Your task to perform on an android device: Show me productivity apps on the Play Store Image 0: 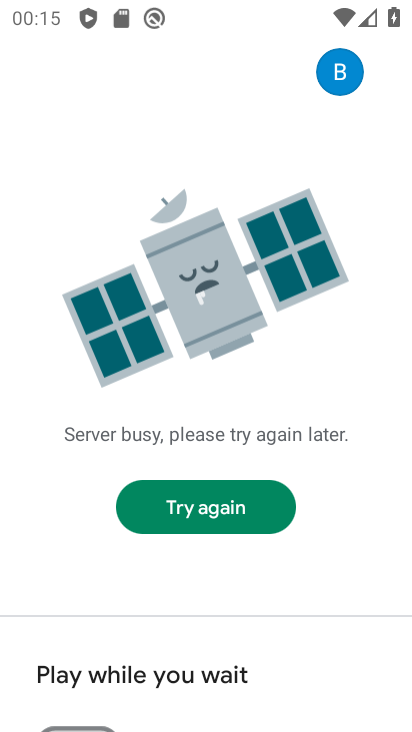
Step 0: press home button
Your task to perform on an android device: Show me productivity apps on the Play Store Image 1: 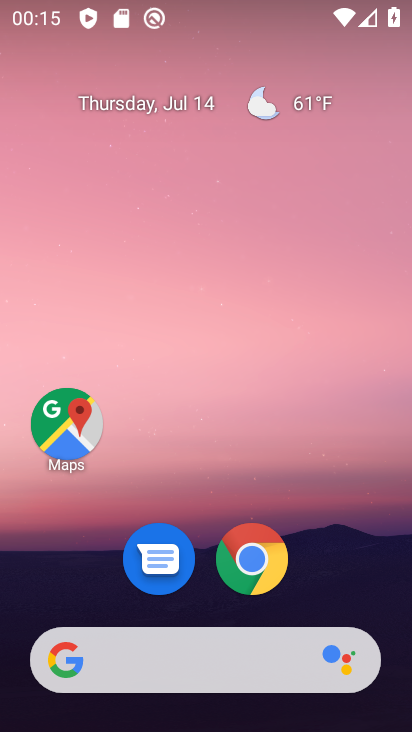
Step 1: drag from (313, 576) to (327, 21)
Your task to perform on an android device: Show me productivity apps on the Play Store Image 2: 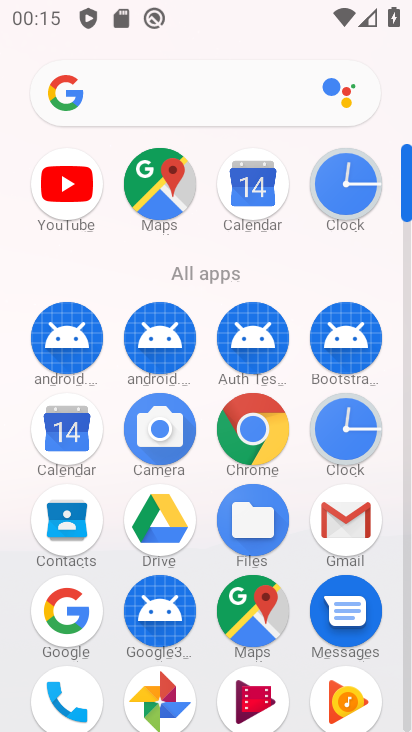
Step 2: drag from (204, 534) to (221, 433)
Your task to perform on an android device: Show me productivity apps on the Play Store Image 3: 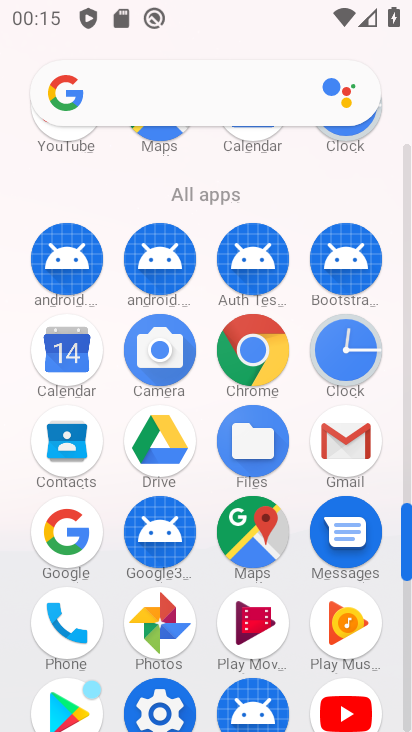
Step 3: click (74, 700)
Your task to perform on an android device: Show me productivity apps on the Play Store Image 4: 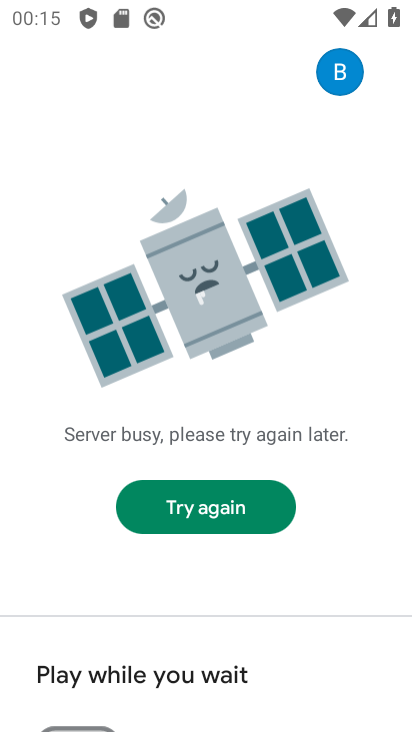
Step 4: drag from (193, 604) to (246, 337)
Your task to perform on an android device: Show me productivity apps on the Play Store Image 5: 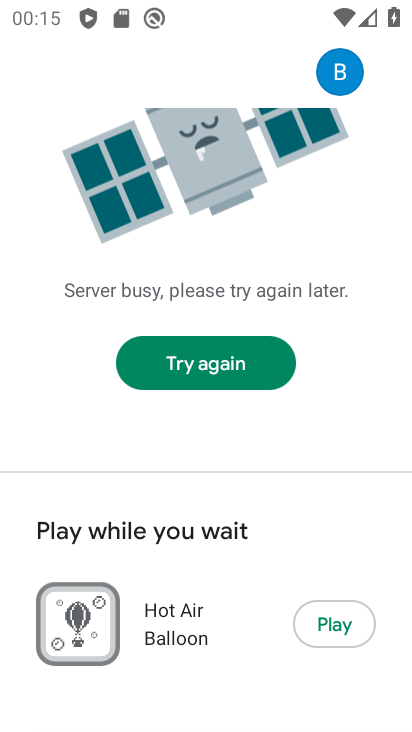
Step 5: click (243, 365)
Your task to perform on an android device: Show me productivity apps on the Play Store Image 6: 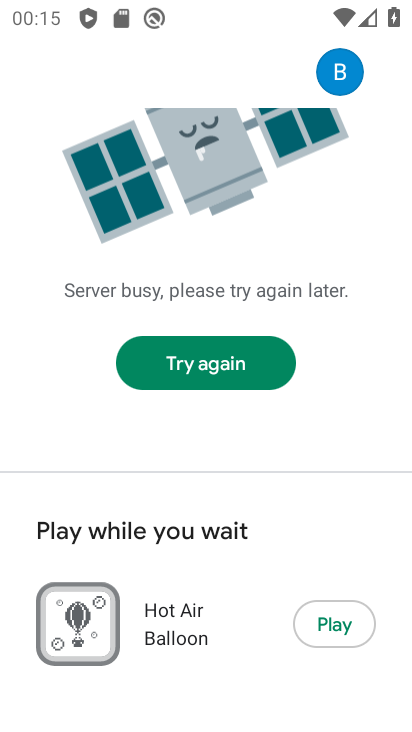
Step 6: drag from (239, 608) to (267, 431)
Your task to perform on an android device: Show me productivity apps on the Play Store Image 7: 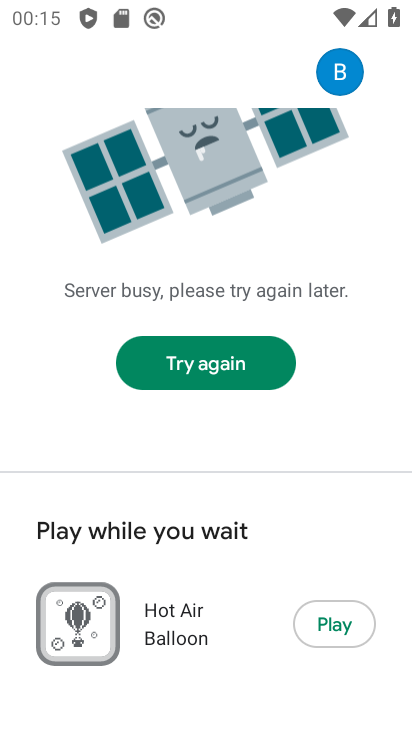
Step 7: click (256, 359)
Your task to perform on an android device: Show me productivity apps on the Play Store Image 8: 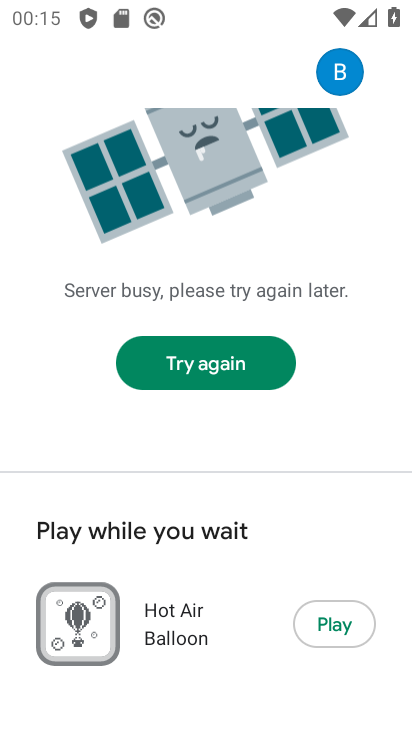
Step 8: drag from (262, 429) to (279, 555)
Your task to perform on an android device: Show me productivity apps on the Play Store Image 9: 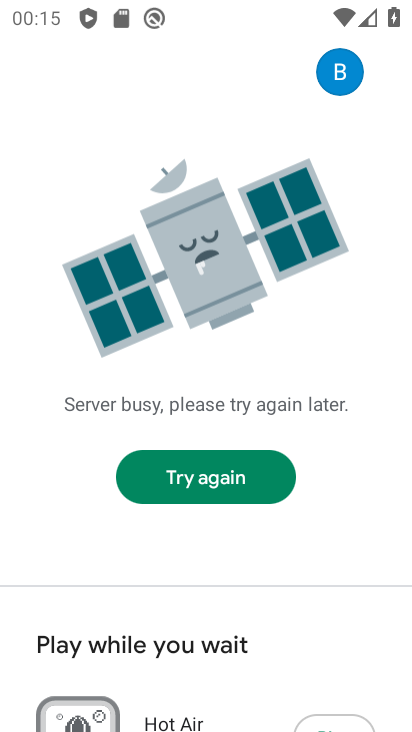
Step 9: click (266, 485)
Your task to perform on an android device: Show me productivity apps on the Play Store Image 10: 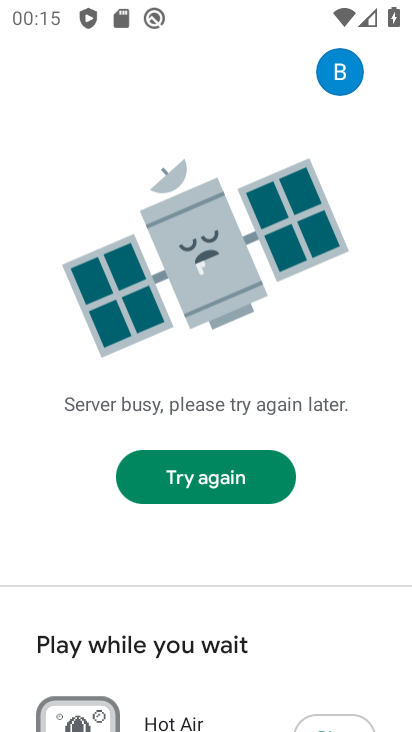
Step 10: task complete